Your task to perform on an android device: Go to accessibility settings Image 0: 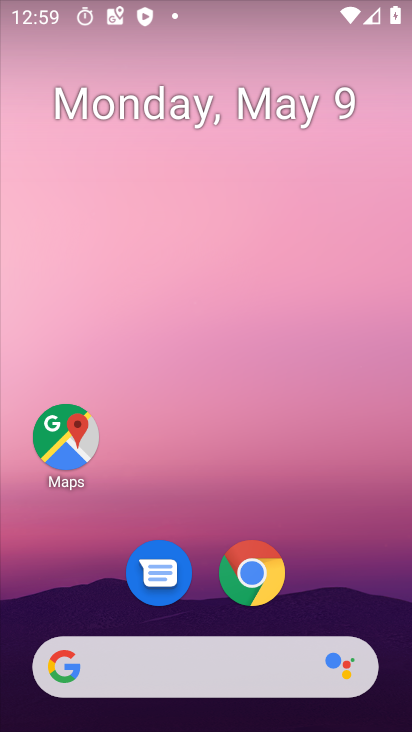
Step 0: drag from (266, 458) to (5, 74)
Your task to perform on an android device: Go to accessibility settings Image 1: 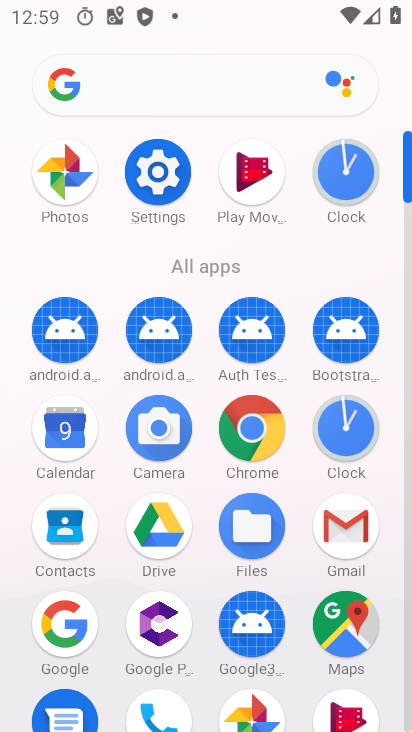
Step 1: click (152, 174)
Your task to perform on an android device: Go to accessibility settings Image 2: 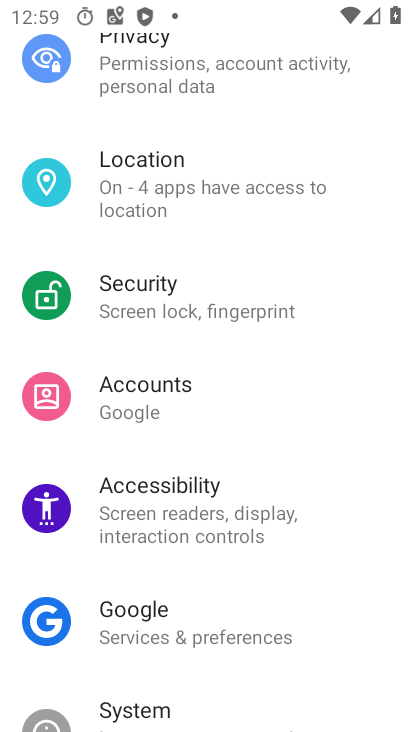
Step 2: drag from (209, 671) to (185, 182)
Your task to perform on an android device: Go to accessibility settings Image 3: 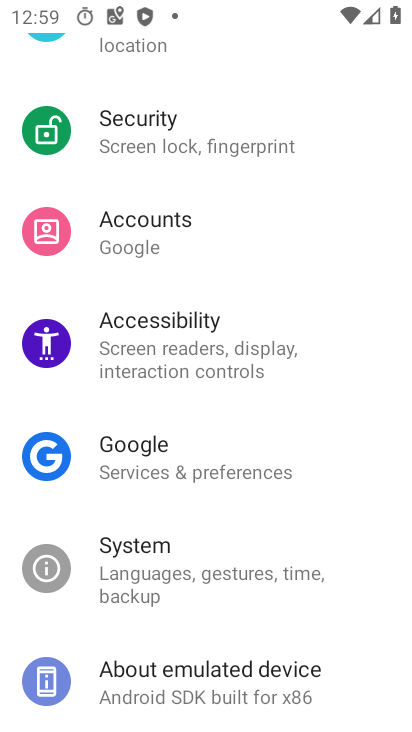
Step 3: click (177, 341)
Your task to perform on an android device: Go to accessibility settings Image 4: 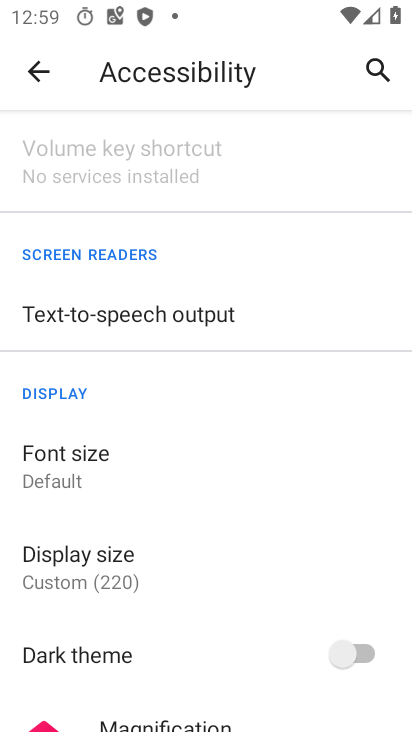
Step 4: task complete